Your task to perform on an android device: turn on improve location accuracy Image 0: 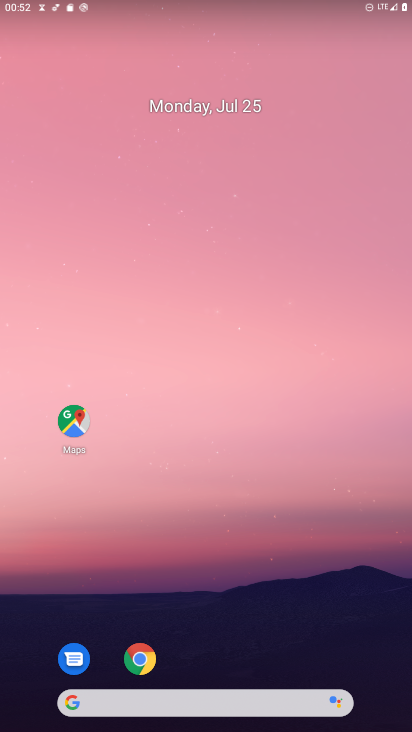
Step 0: drag from (225, 651) to (167, 270)
Your task to perform on an android device: turn on improve location accuracy Image 1: 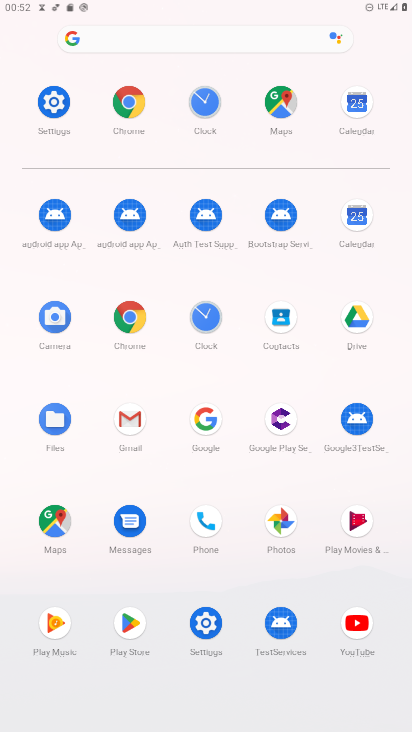
Step 1: click (45, 87)
Your task to perform on an android device: turn on improve location accuracy Image 2: 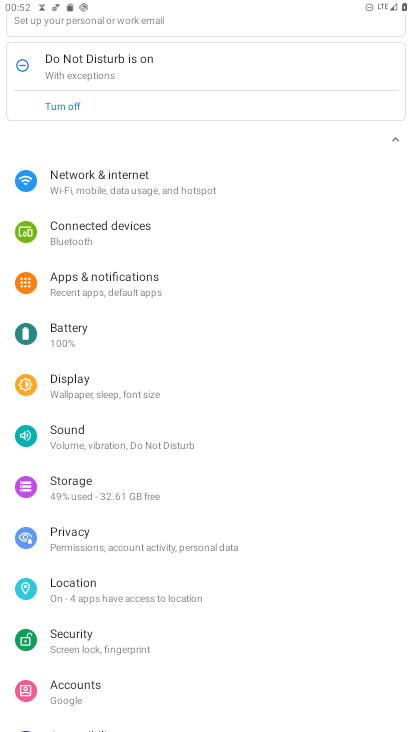
Step 2: click (106, 571)
Your task to perform on an android device: turn on improve location accuracy Image 3: 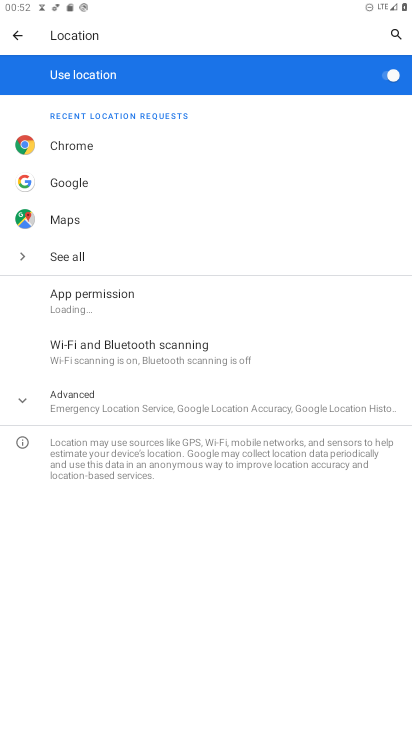
Step 3: click (159, 400)
Your task to perform on an android device: turn on improve location accuracy Image 4: 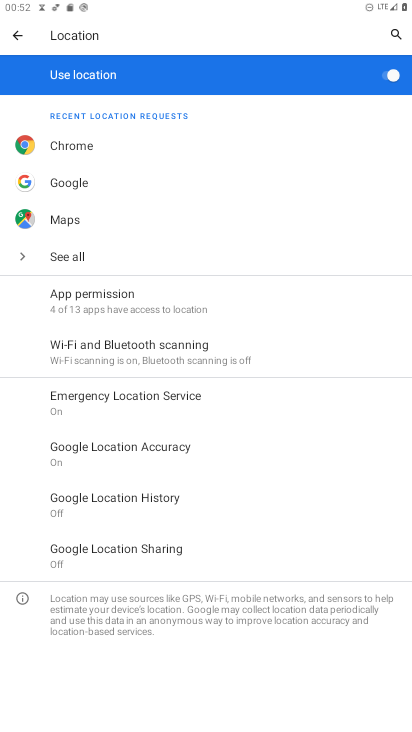
Step 4: click (177, 446)
Your task to perform on an android device: turn on improve location accuracy Image 5: 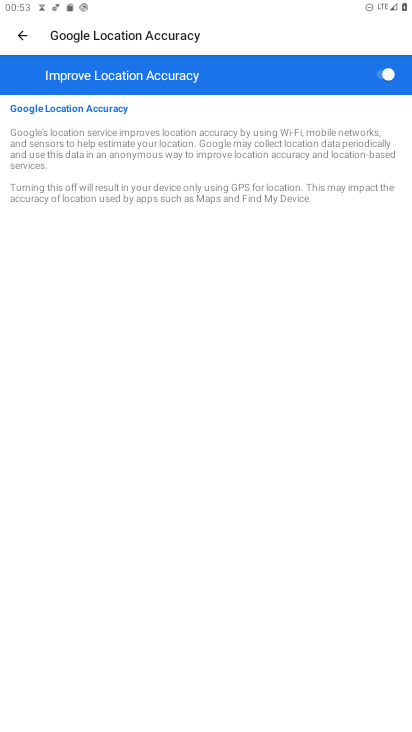
Step 5: task complete